Your task to perform on an android device: Open calendar and show me the third week of next month Image 0: 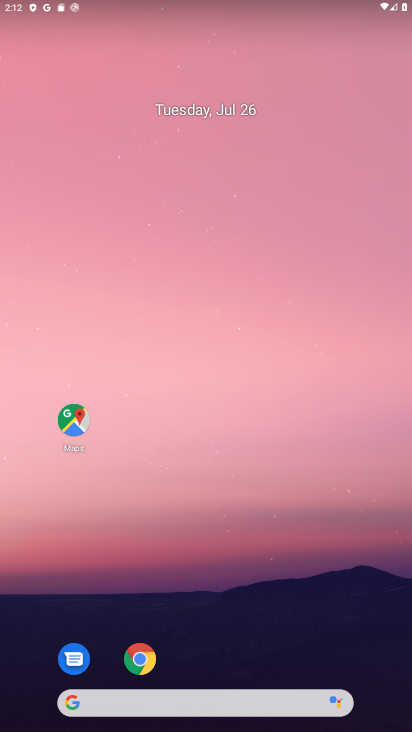
Step 0: drag from (378, 706) to (363, 197)
Your task to perform on an android device: Open calendar and show me the third week of next month Image 1: 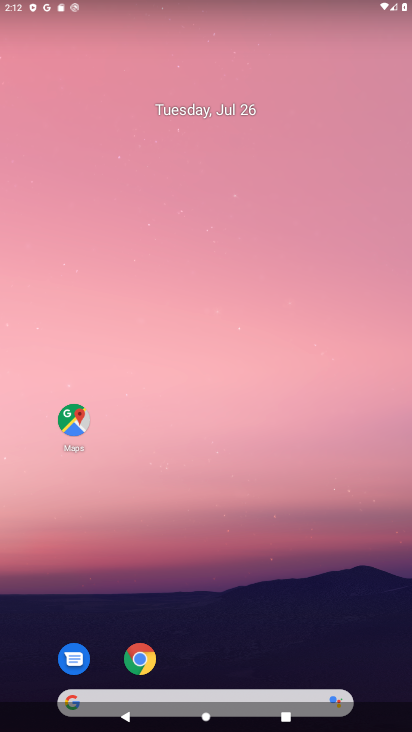
Step 1: drag from (377, 720) to (344, 78)
Your task to perform on an android device: Open calendar and show me the third week of next month Image 2: 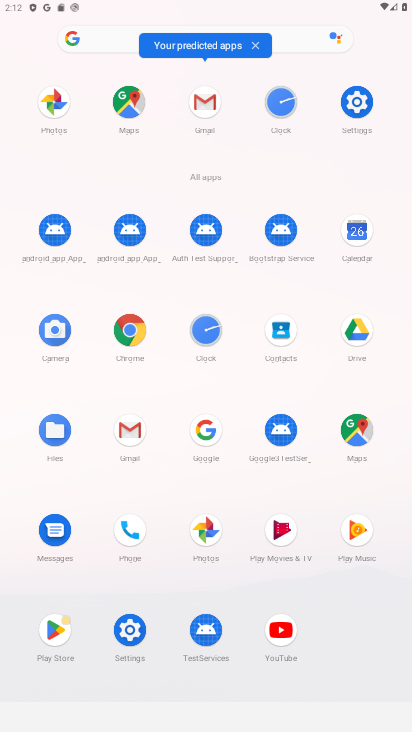
Step 2: click (365, 228)
Your task to perform on an android device: Open calendar and show me the third week of next month Image 3: 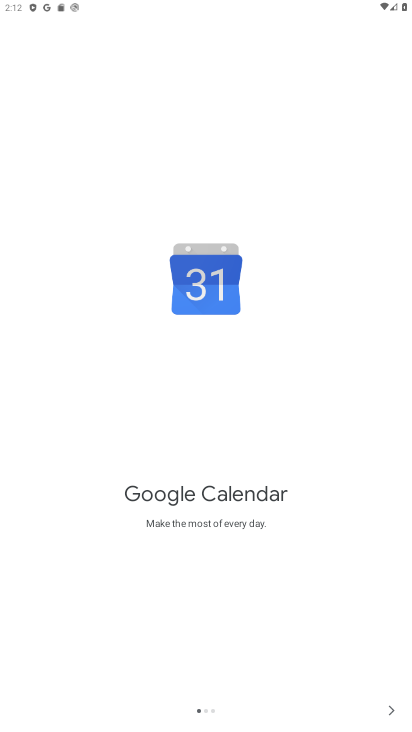
Step 3: click (382, 706)
Your task to perform on an android device: Open calendar and show me the third week of next month Image 4: 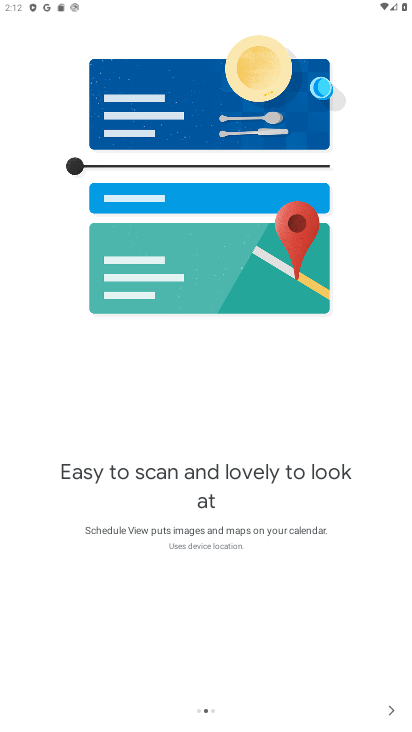
Step 4: click (380, 710)
Your task to perform on an android device: Open calendar and show me the third week of next month Image 5: 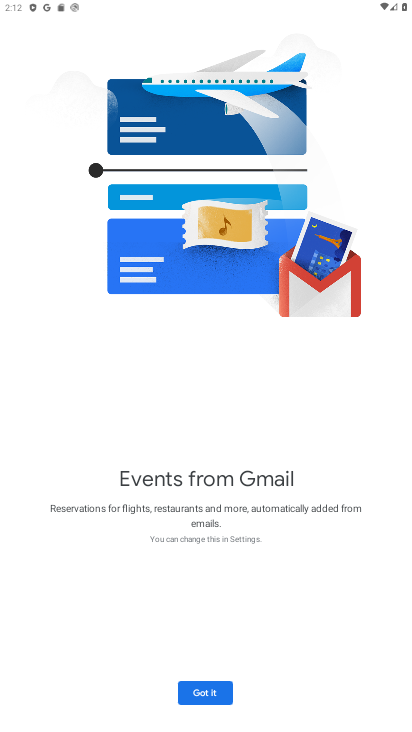
Step 5: click (380, 710)
Your task to perform on an android device: Open calendar and show me the third week of next month Image 6: 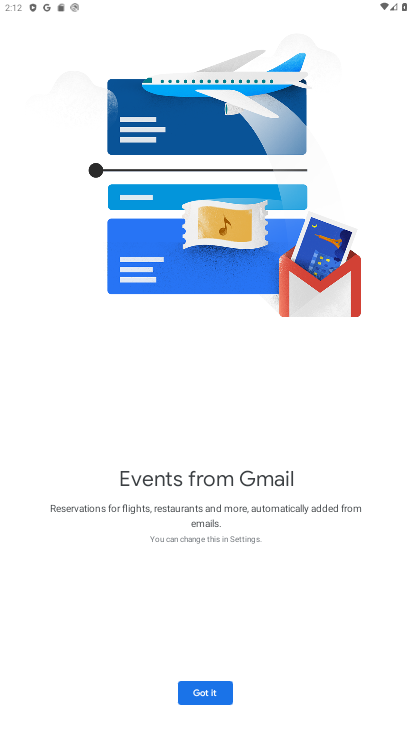
Step 6: click (212, 698)
Your task to perform on an android device: Open calendar and show me the third week of next month Image 7: 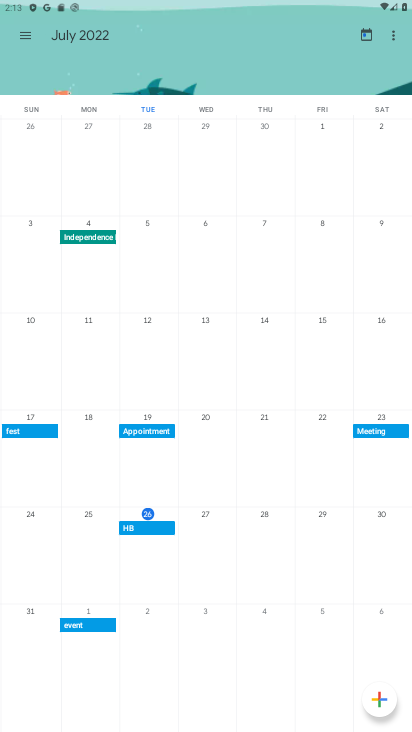
Step 7: click (104, 41)
Your task to perform on an android device: Open calendar and show me the third week of next month Image 8: 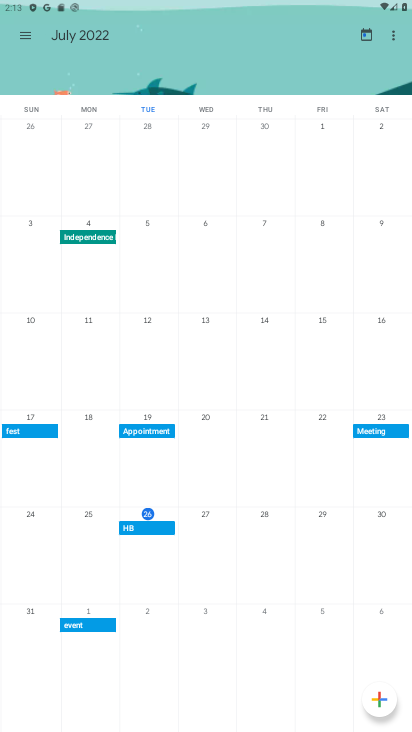
Step 8: drag from (398, 337) to (44, 318)
Your task to perform on an android device: Open calendar and show me the third week of next month Image 9: 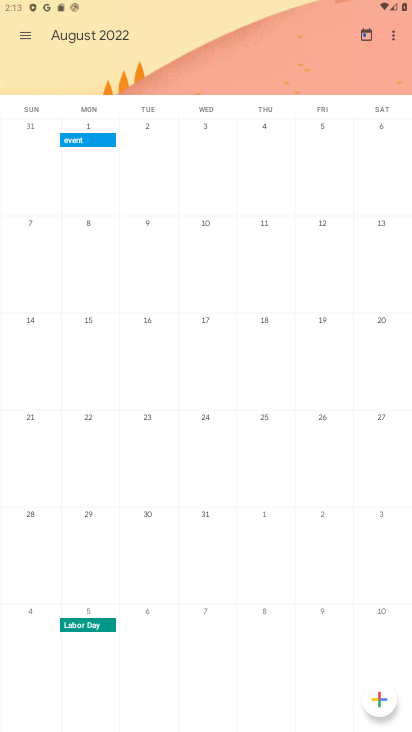
Step 9: click (147, 320)
Your task to perform on an android device: Open calendar and show me the third week of next month Image 10: 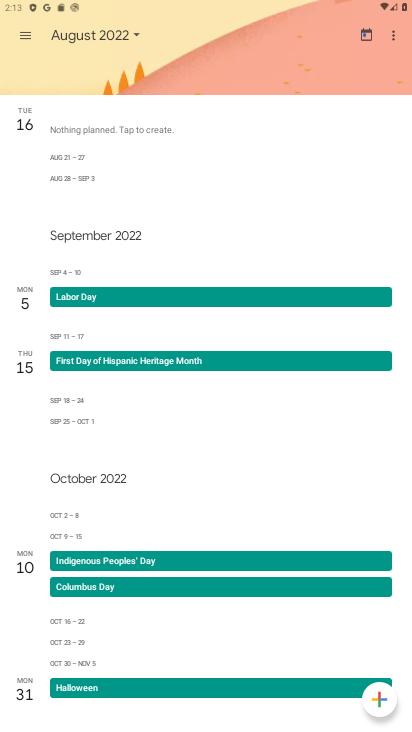
Step 10: click (17, 35)
Your task to perform on an android device: Open calendar and show me the third week of next month Image 11: 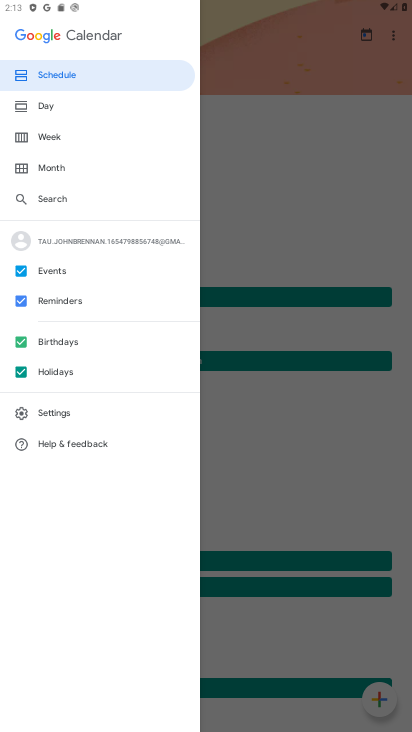
Step 11: click (48, 136)
Your task to perform on an android device: Open calendar and show me the third week of next month Image 12: 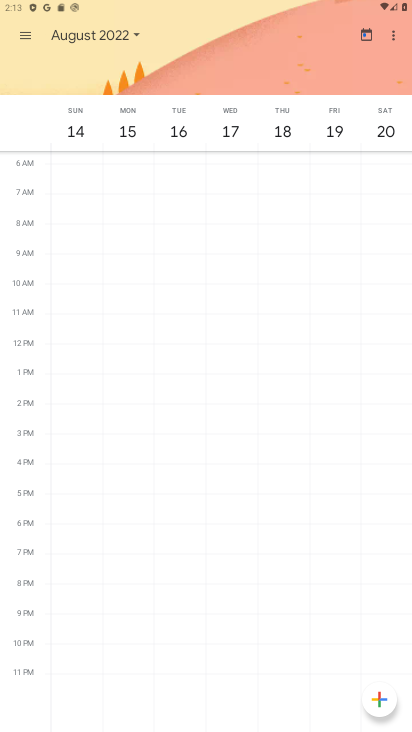
Step 12: click (26, 42)
Your task to perform on an android device: Open calendar and show me the third week of next month Image 13: 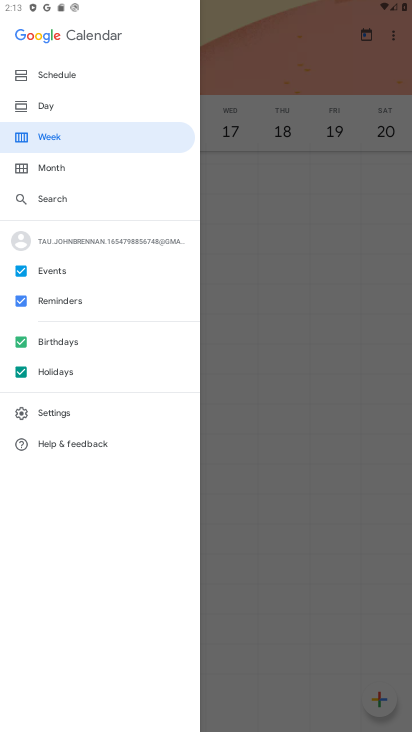
Step 13: click (347, 179)
Your task to perform on an android device: Open calendar and show me the third week of next month Image 14: 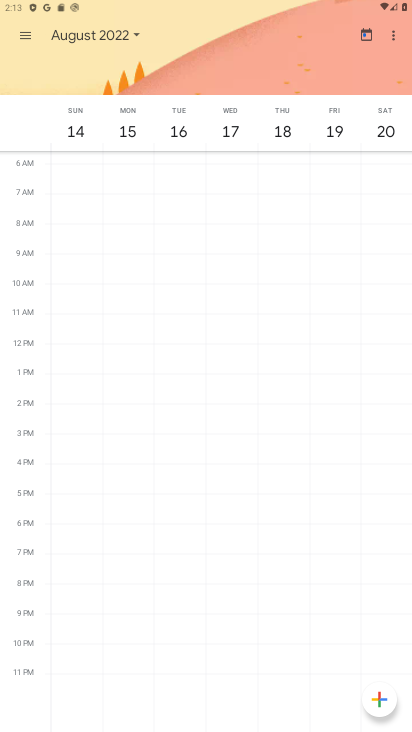
Step 14: task complete